Your task to perform on an android device: Go to CNN.com Image 0: 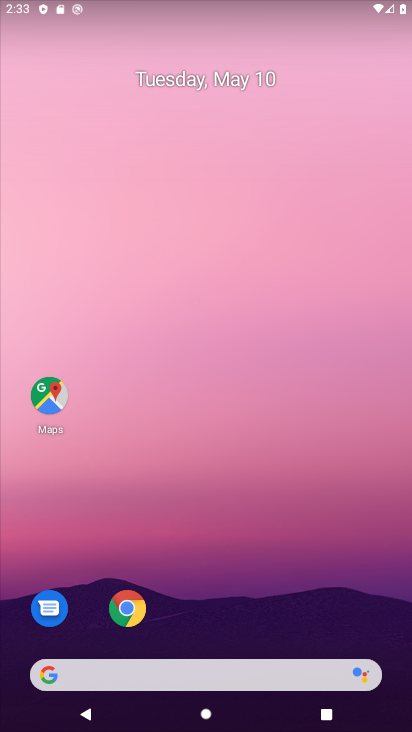
Step 0: click (127, 609)
Your task to perform on an android device: Go to CNN.com Image 1: 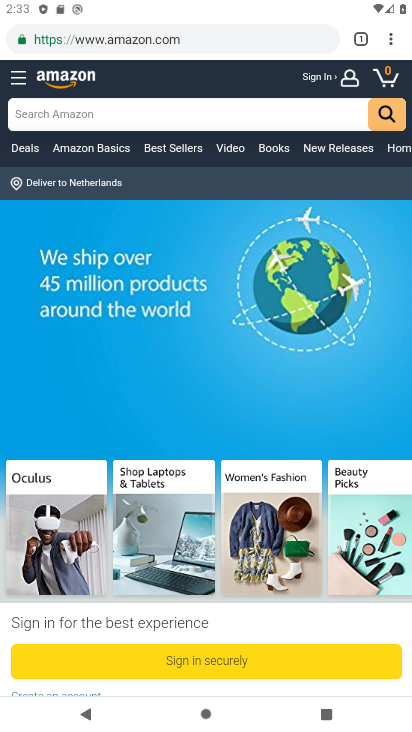
Step 1: click (119, 33)
Your task to perform on an android device: Go to CNN.com Image 2: 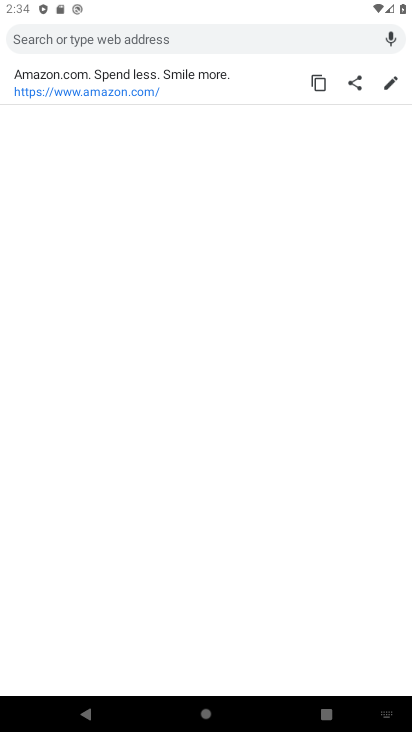
Step 2: type "cnn.com"
Your task to perform on an android device: Go to CNN.com Image 3: 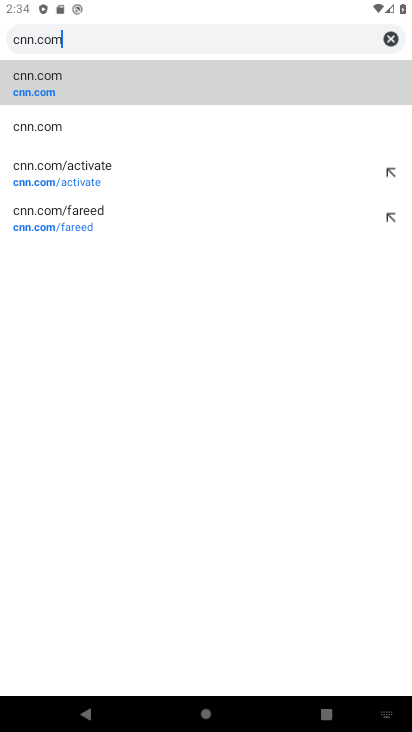
Step 3: click (36, 78)
Your task to perform on an android device: Go to CNN.com Image 4: 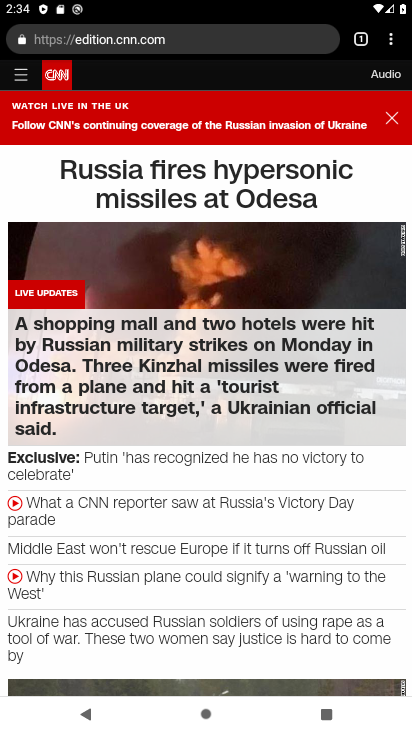
Step 4: task complete